Your task to perform on an android device: Go to sound settings Image 0: 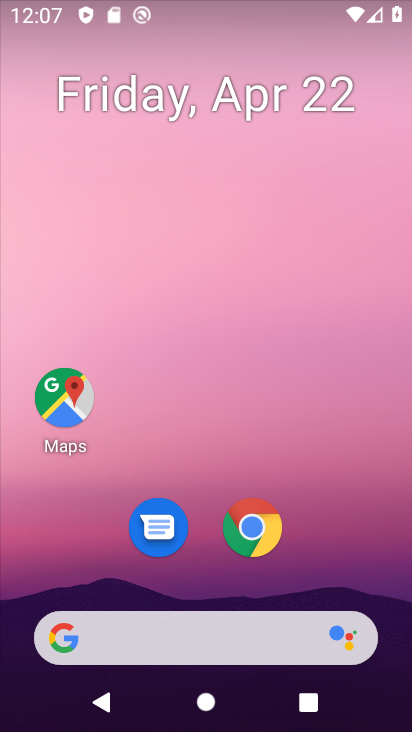
Step 0: drag from (202, 558) to (254, 77)
Your task to perform on an android device: Go to sound settings Image 1: 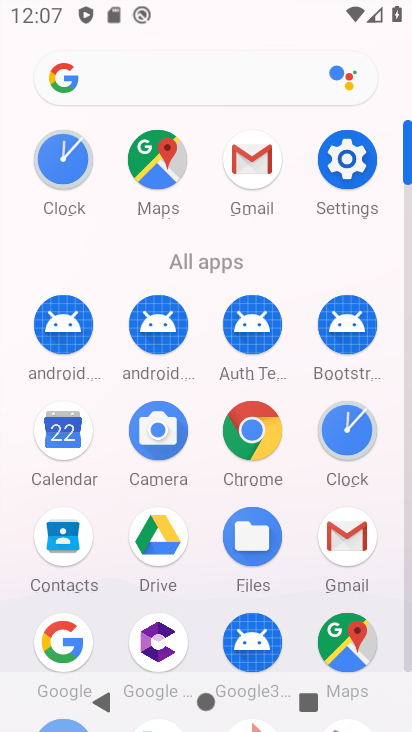
Step 1: click (331, 165)
Your task to perform on an android device: Go to sound settings Image 2: 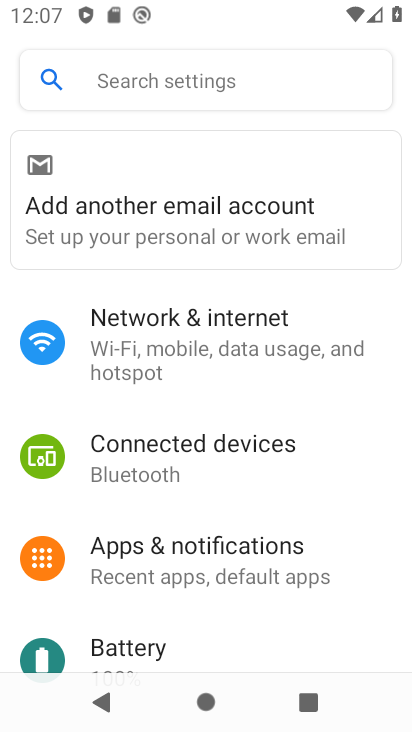
Step 2: drag from (262, 627) to (262, 267)
Your task to perform on an android device: Go to sound settings Image 3: 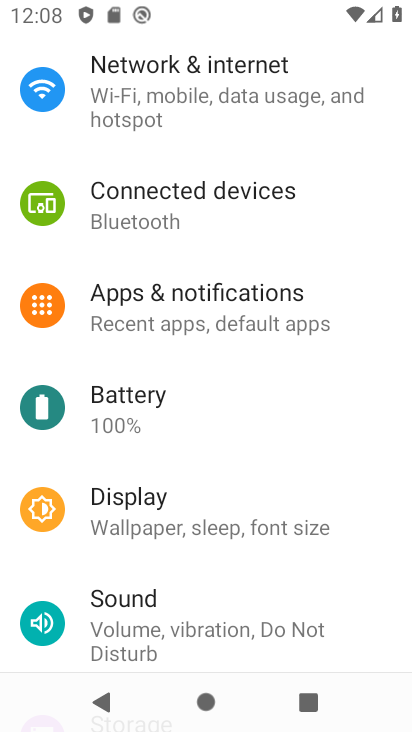
Step 3: click (175, 598)
Your task to perform on an android device: Go to sound settings Image 4: 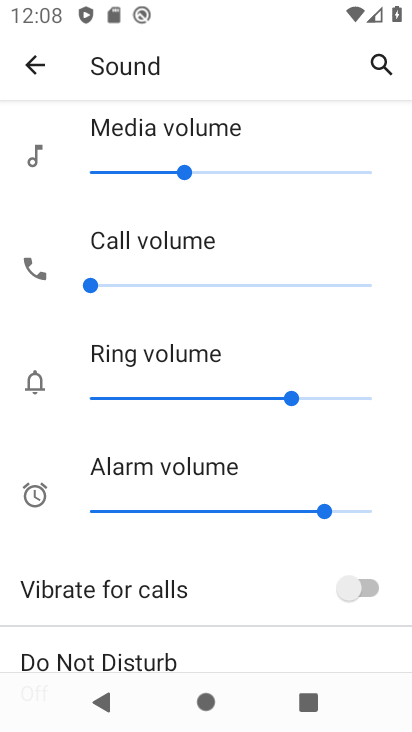
Step 4: task complete